Your task to perform on an android device: toggle airplane mode Image 0: 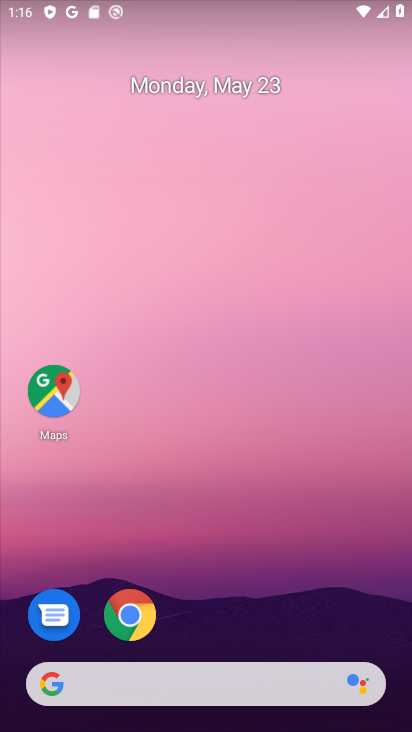
Step 0: press home button
Your task to perform on an android device: toggle airplane mode Image 1: 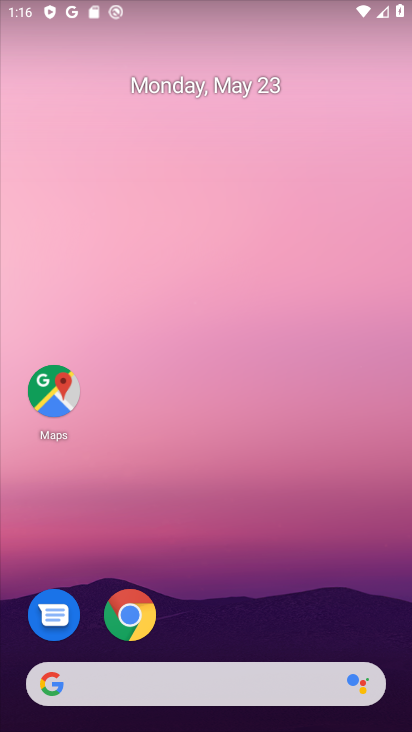
Step 1: click (373, 482)
Your task to perform on an android device: toggle airplane mode Image 2: 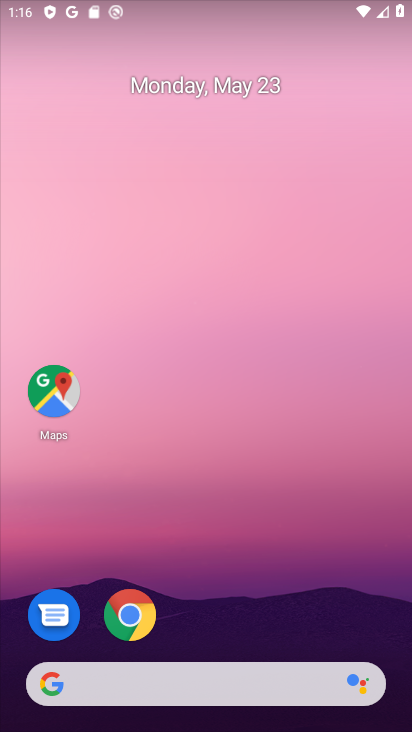
Step 2: drag from (216, 639) to (230, 93)
Your task to perform on an android device: toggle airplane mode Image 3: 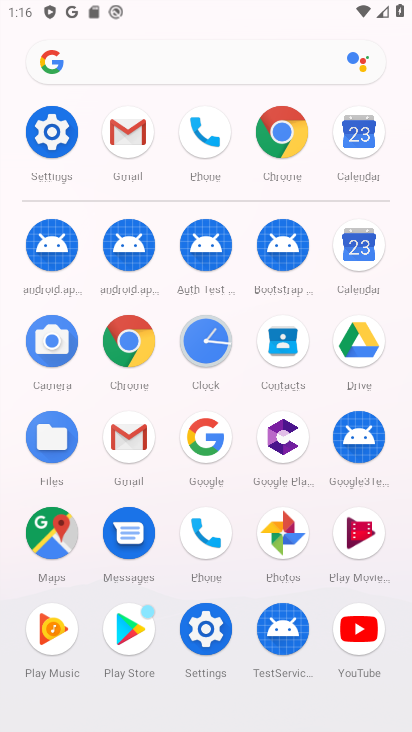
Step 3: click (36, 123)
Your task to perform on an android device: toggle airplane mode Image 4: 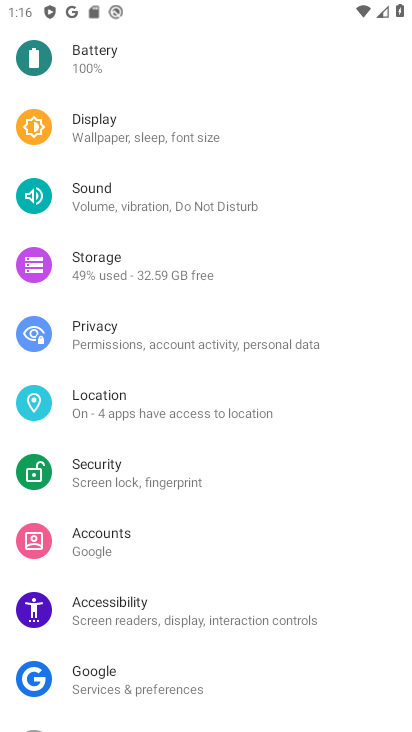
Step 4: drag from (265, 111) to (283, 584)
Your task to perform on an android device: toggle airplane mode Image 5: 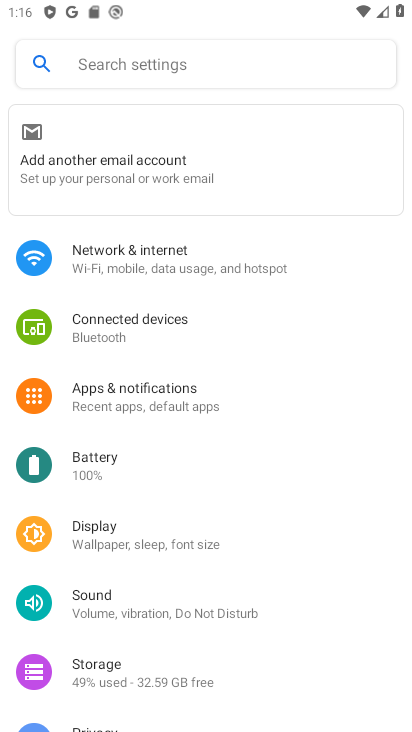
Step 5: click (124, 265)
Your task to perform on an android device: toggle airplane mode Image 6: 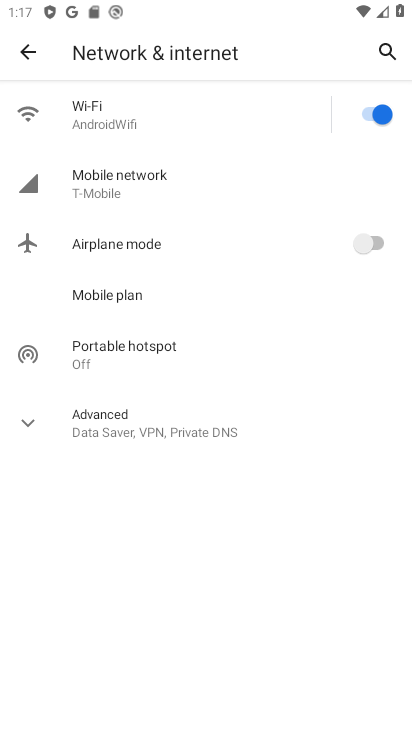
Step 6: click (360, 250)
Your task to perform on an android device: toggle airplane mode Image 7: 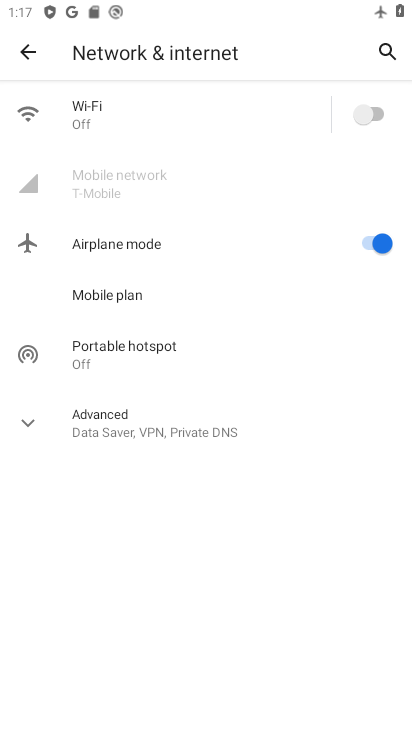
Step 7: task complete